Your task to perform on an android device: What's on my calendar tomorrow? Image 0: 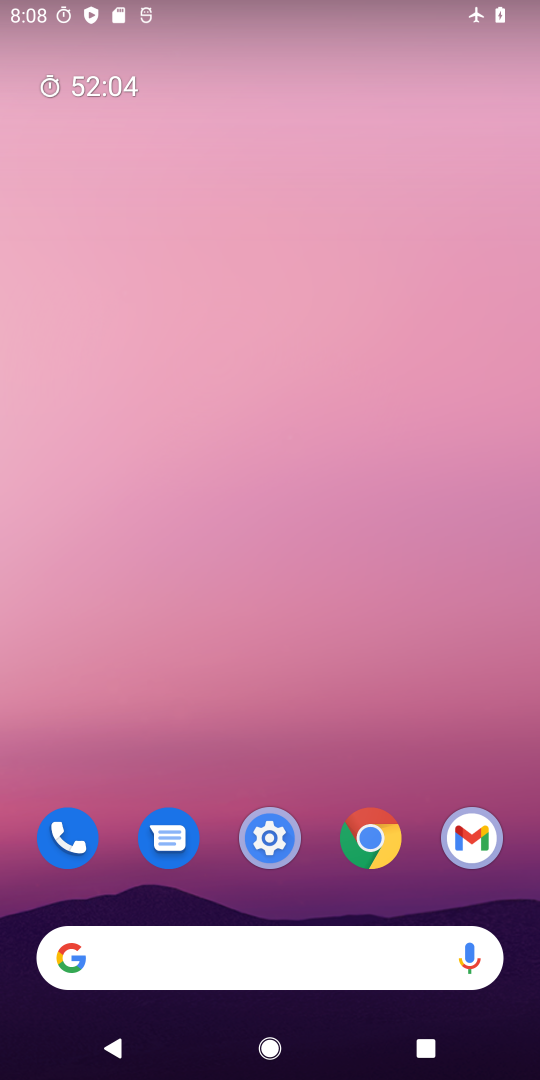
Step 0: drag from (235, 565) to (522, 133)
Your task to perform on an android device: What's on my calendar tomorrow? Image 1: 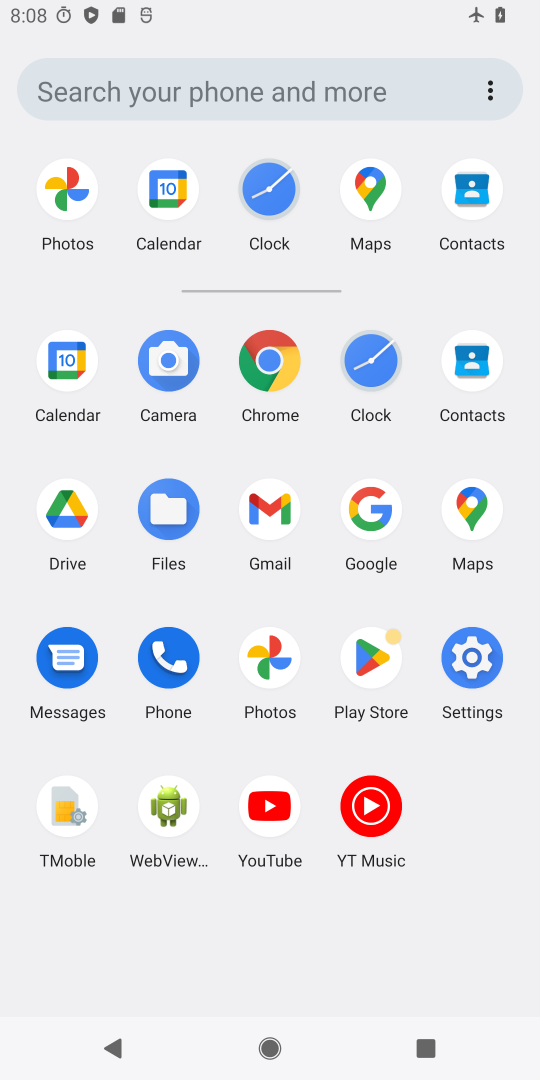
Step 1: click (43, 360)
Your task to perform on an android device: What's on my calendar tomorrow? Image 2: 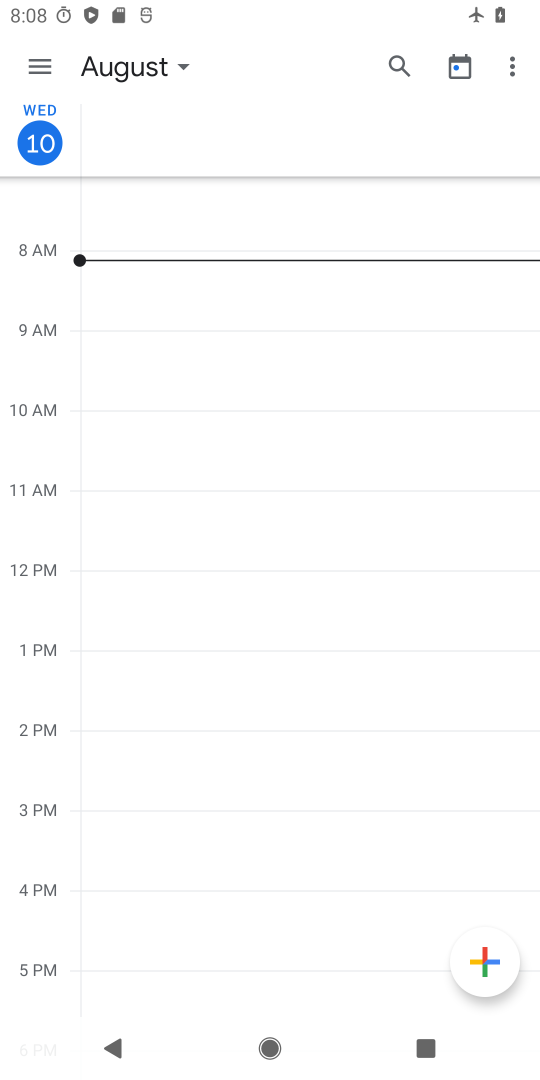
Step 2: click (127, 87)
Your task to perform on an android device: What's on my calendar tomorrow? Image 3: 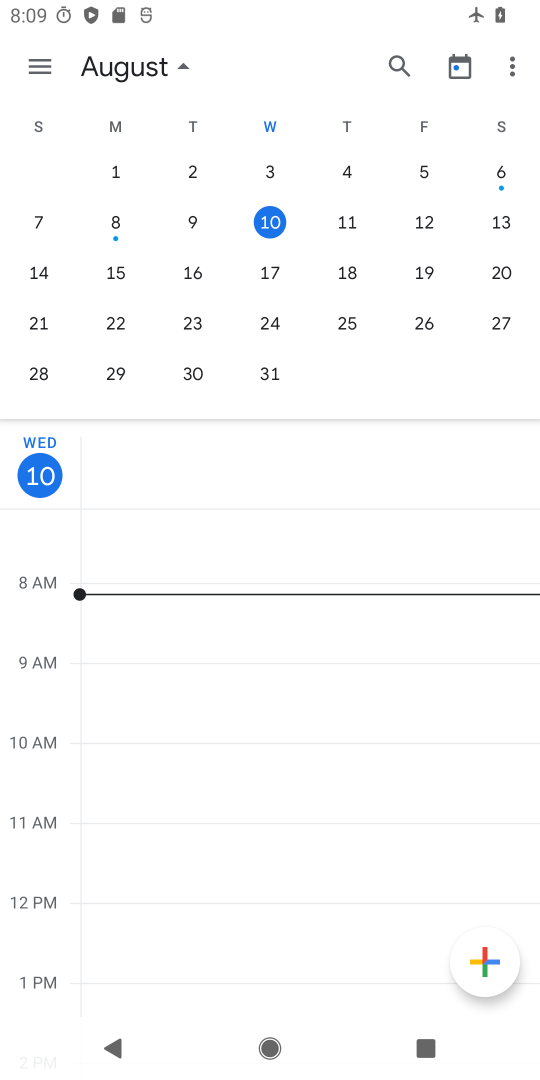
Step 3: click (359, 224)
Your task to perform on an android device: What's on my calendar tomorrow? Image 4: 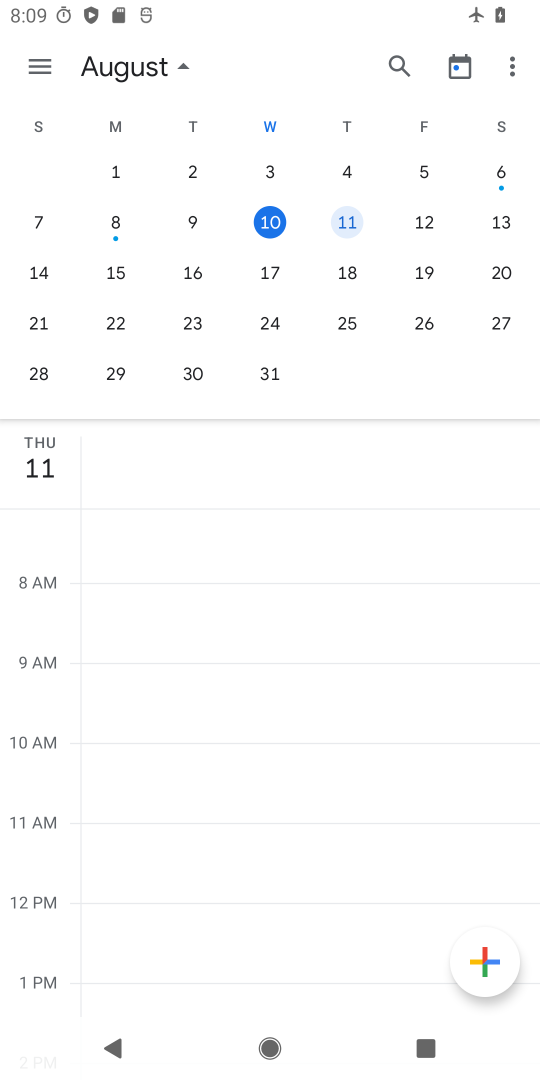
Step 4: task complete